Your task to perform on an android device: open app "Google Translate" (install if not already installed) Image 0: 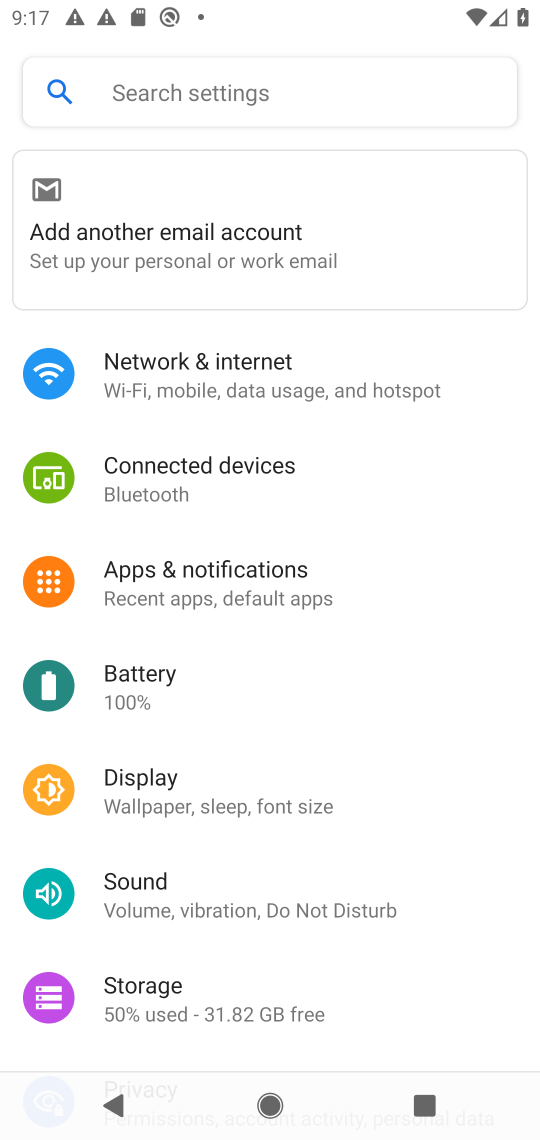
Step 0: press home button
Your task to perform on an android device: open app "Google Translate" (install if not already installed) Image 1: 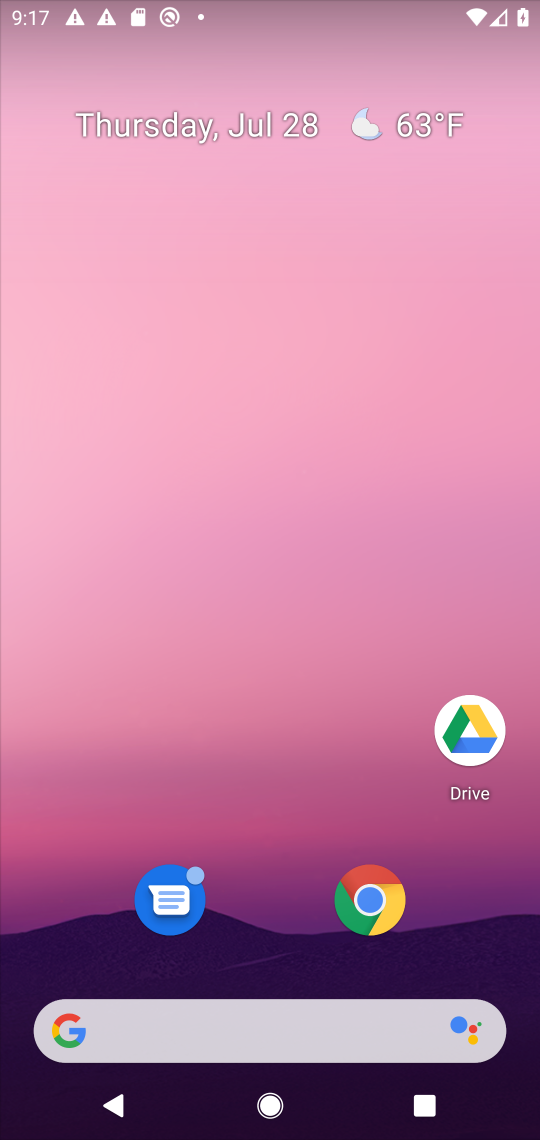
Step 1: drag from (236, 806) to (258, 255)
Your task to perform on an android device: open app "Google Translate" (install if not already installed) Image 2: 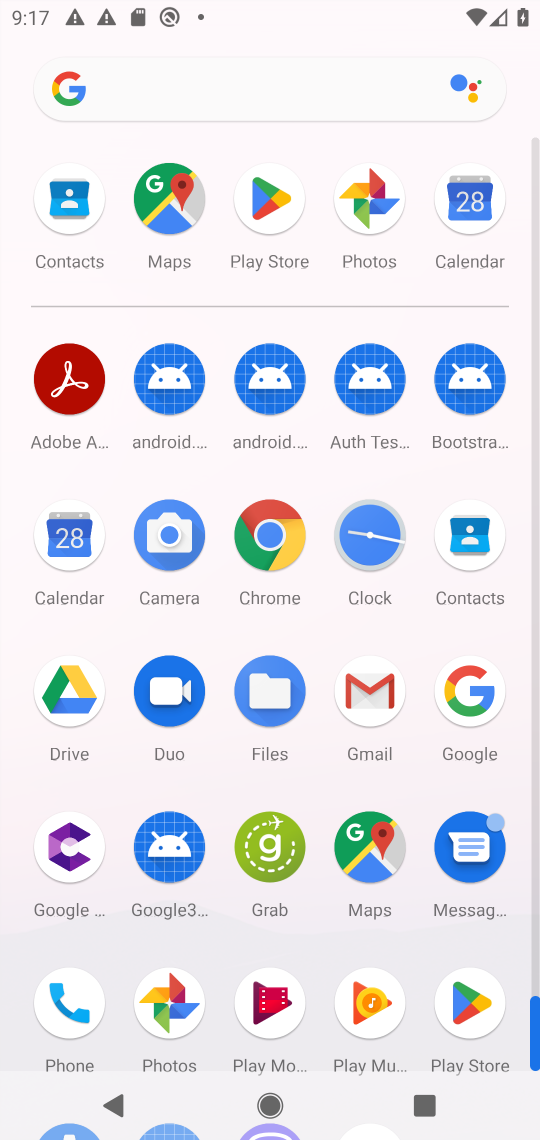
Step 2: click (469, 1017)
Your task to perform on an android device: open app "Google Translate" (install if not already installed) Image 3: 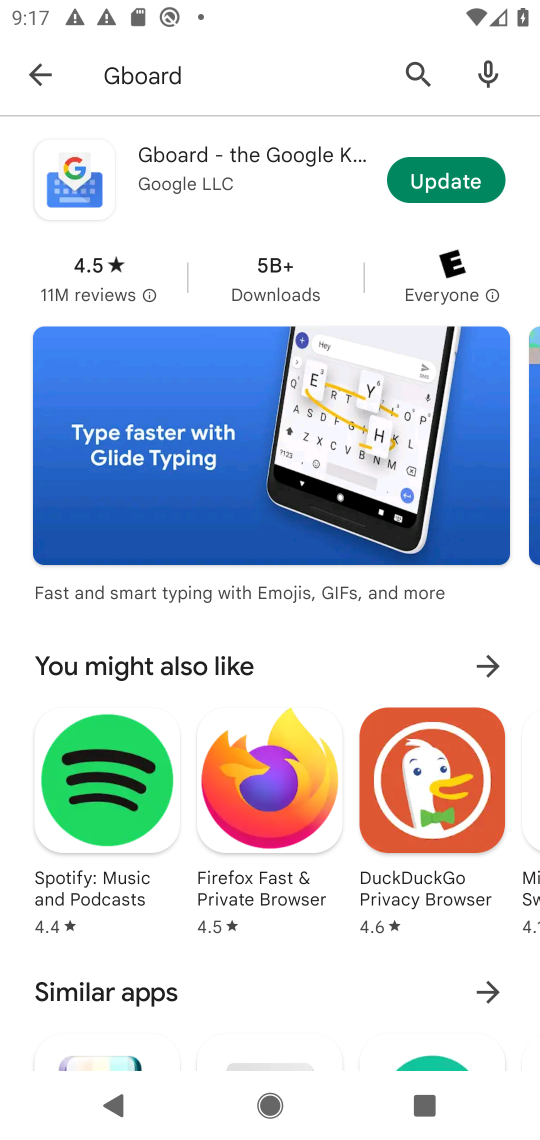
Step 3: click (415, 81)
Your task to perform on an android device: open app "Google Translate" (install if not already installed) Image 4: 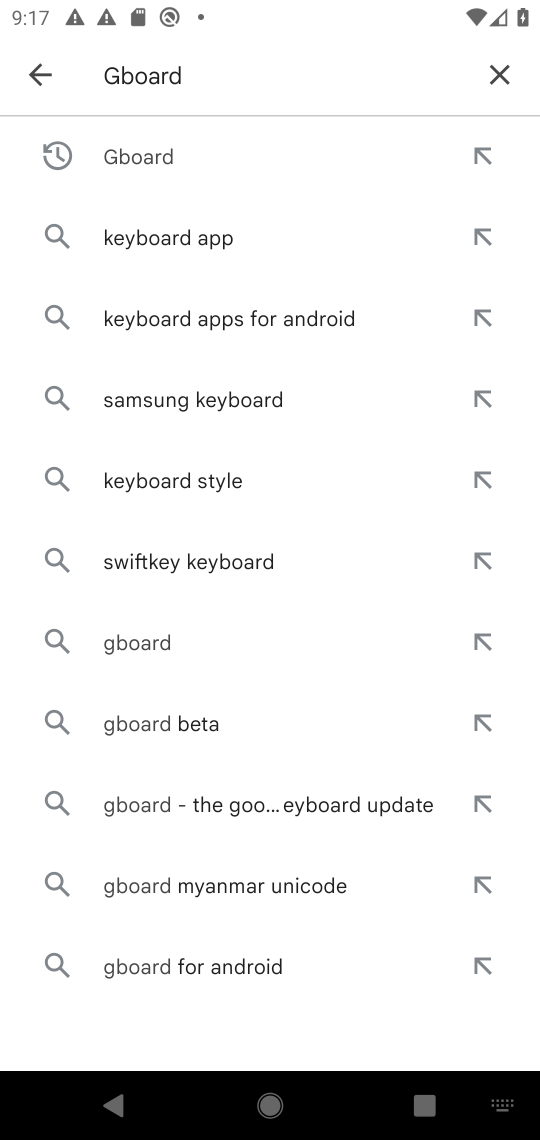
Step 4: click (506, 60)
Your task to perform on an android device: open app "Google Translate" (install if not already installed) Image 5: 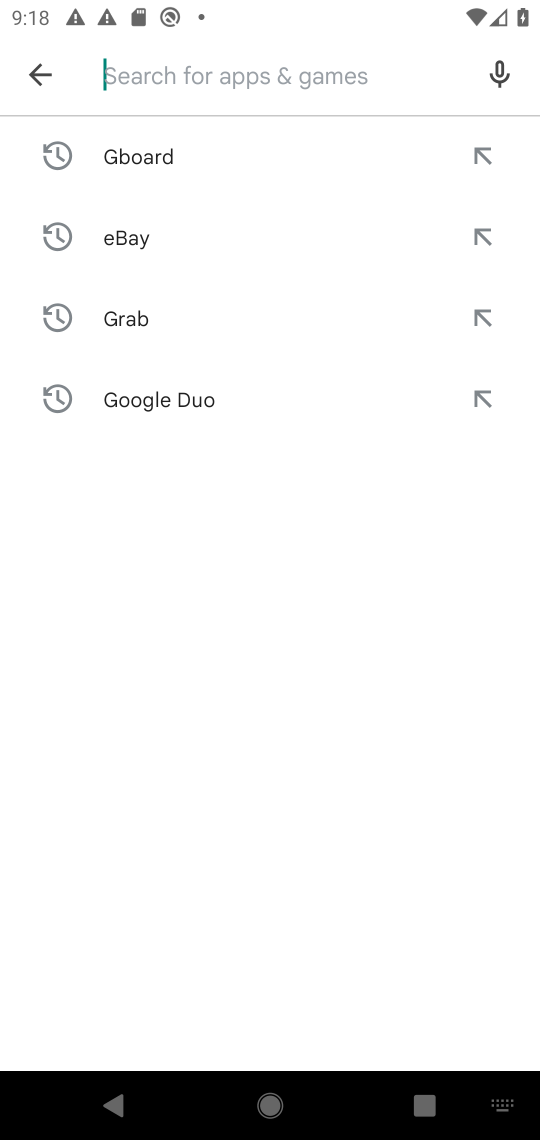
Step 5: type "Google Translate"
Your task to perform on an android device: open app "Google Translate" (install if not already installed) Image 6: 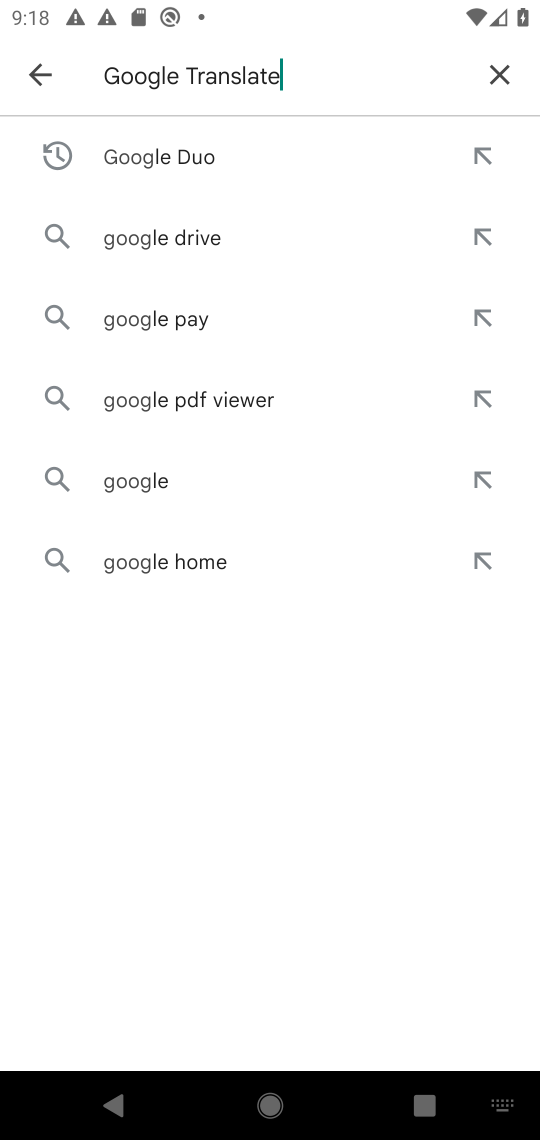
Step 6: press enter
Your task to perform on an android device: open app "Google Translate" (install if not already installed) Image 7: 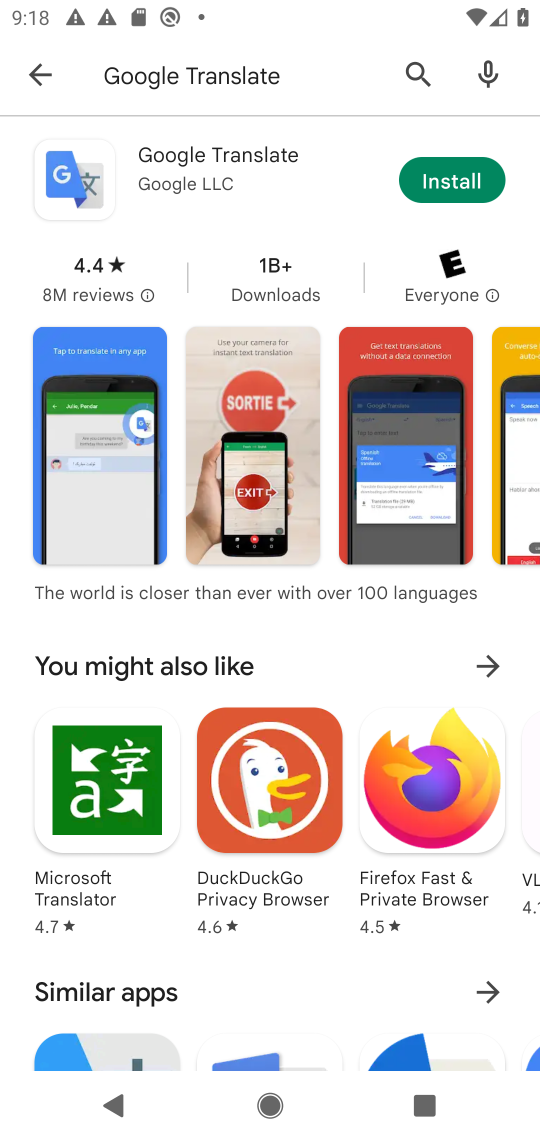
Step 7: click (447, 167)
Your task to perform on an android device: open app "Google Translate" (install if not already installed) Image 8: 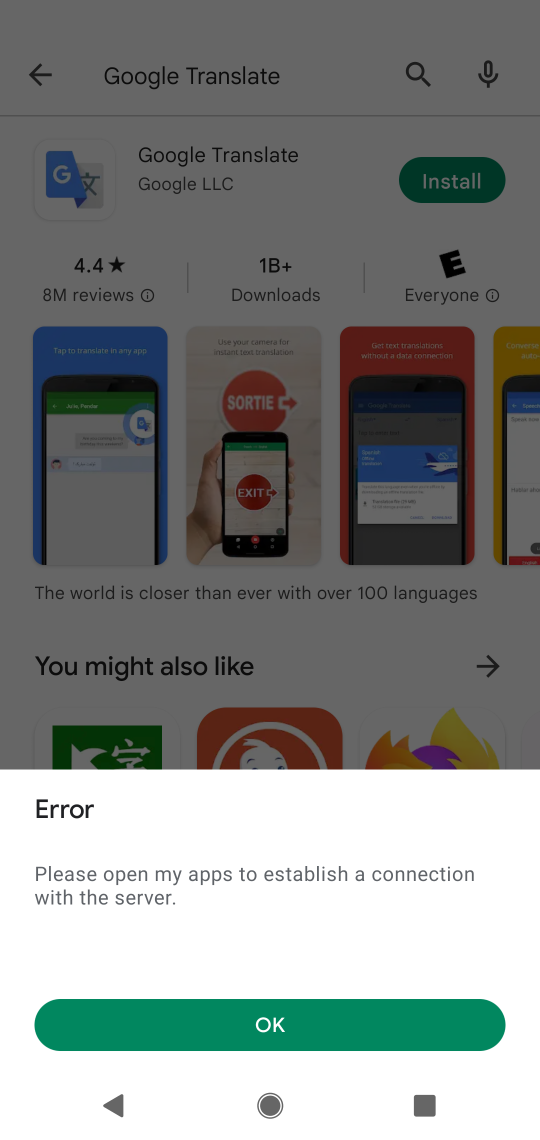
Step 8: task complete